Your task to perform on an android device: Show me productivity apps on the Play Store Image 0: 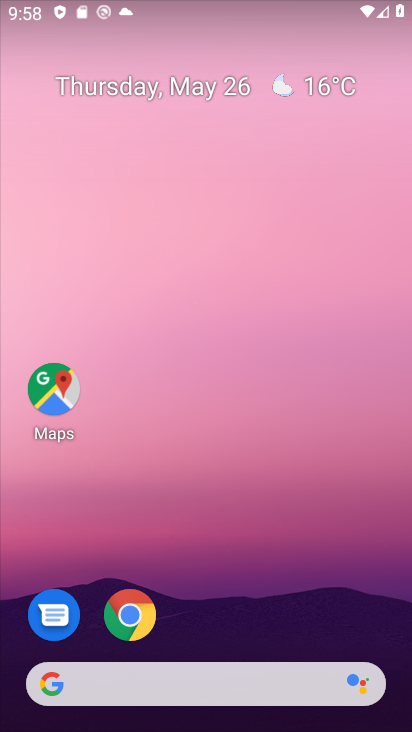
Step 0: press home button
Your task to perform on an android device: Show me productivity apps on the Play Store Image 1: 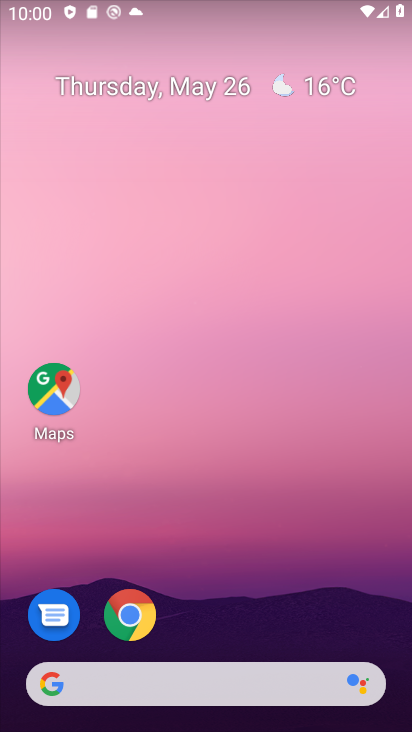
Step 1: drag from (295, 710) to (243, 202)
Your task to perform on an android device: Show me productivity apps on the Play Store Image 2: 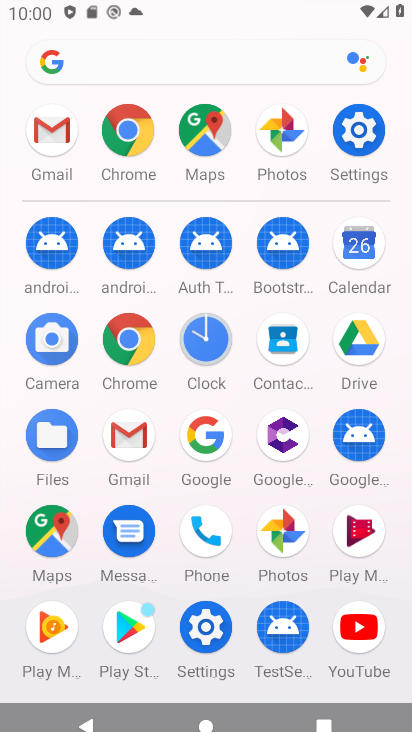
Step 2: click (131, 605)
Your task to perform on an android device: Show me productivity apps on the Play Store Image 3: 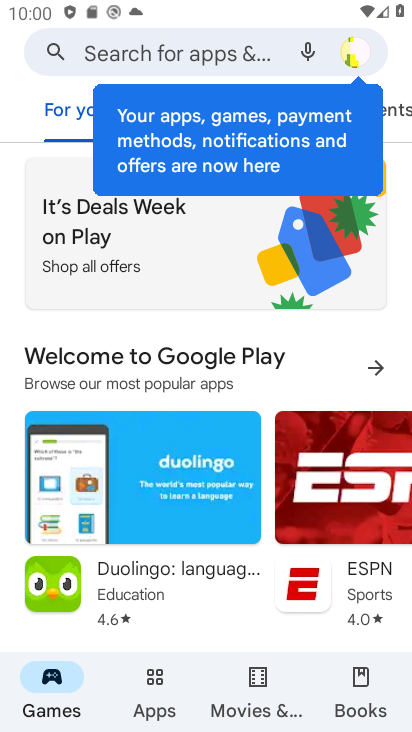
Step 3: click (182, 59)
Your task to perform on an android device: Show me productivity apps on the Play Store Image 4: 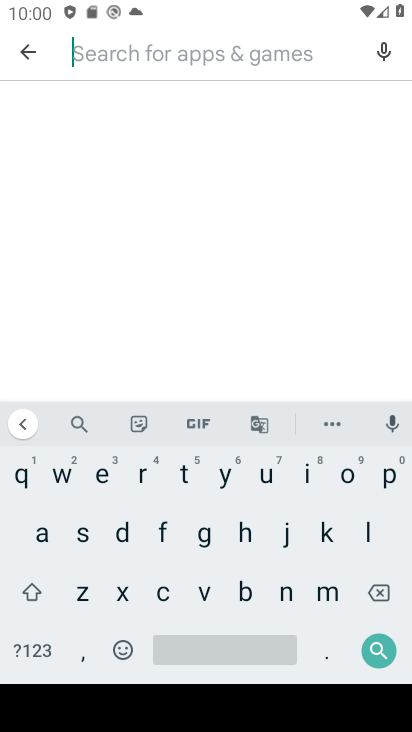
Step 4: click (377, 480)
Your task to perform on an android device: Show me productivity apps on the Play Store Image 5: 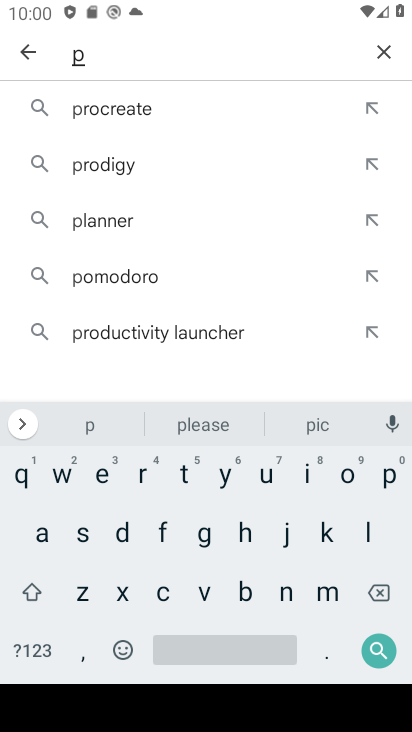
Step 5: click (139, 480)
Your task to perform on an android device: Show me productivity apps on the Play Store Image 6: 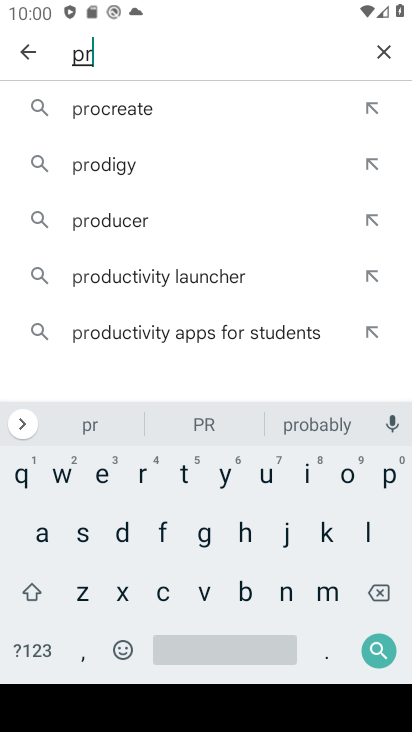
Step 6: click (330, 479)
Your task to perform on an android device: Show me productivity apps on the Play Store Image 7: 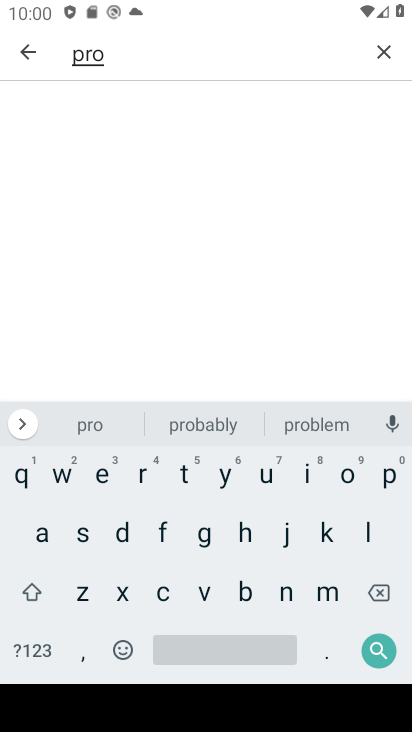
Step 7: click (113, 531)
Your task to perform on an android device: Show me productivity apps on the Play Store Image 8: 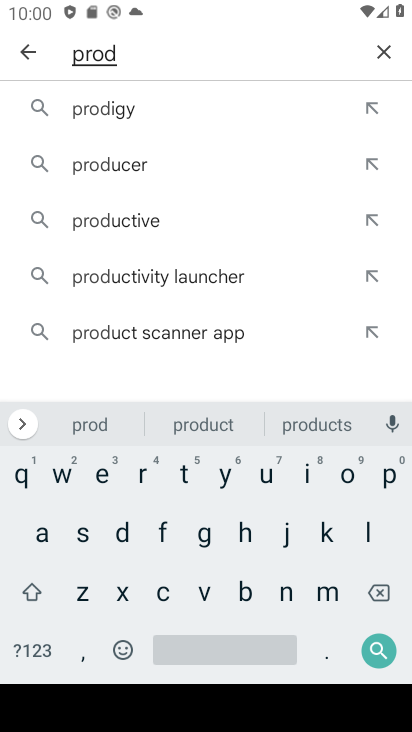
Step 8: click (253, 470)
Your task to perform on an android device: Show me productivity apps on the Play Store Image 9: 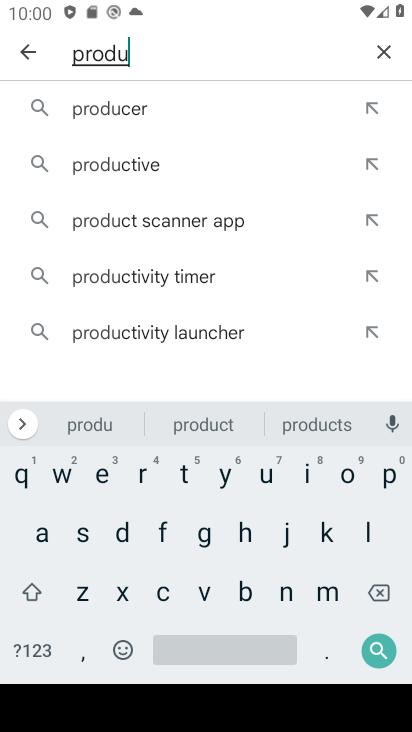
Step 9: click (156, 593)
Your task to perform on an android device: Show me productivity apps on the Play Store Image 10: 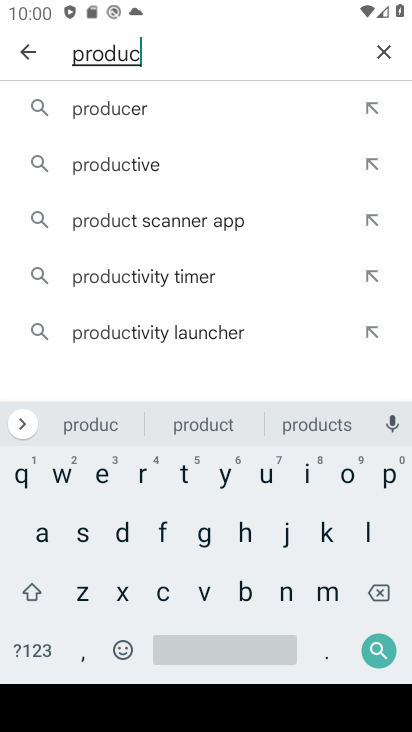
Step 10: click (172, 476)
Your task to perform on an android device: Show me productivity apps on the Play Store Image 11: 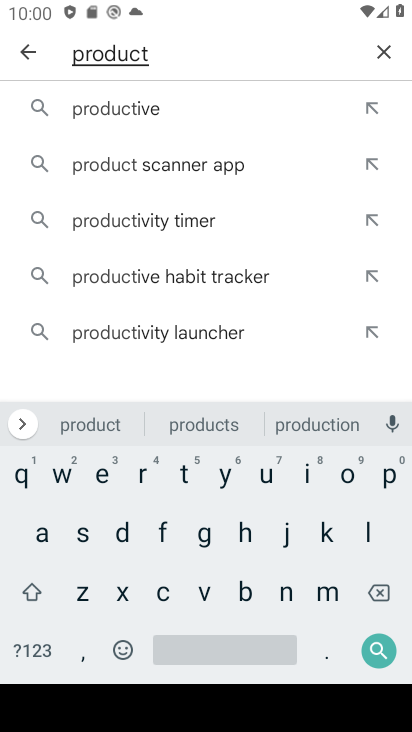
Step 11: click (303, 473)
Your task to perform on an android device: Show me productivity apps on the Play Store Image 12: 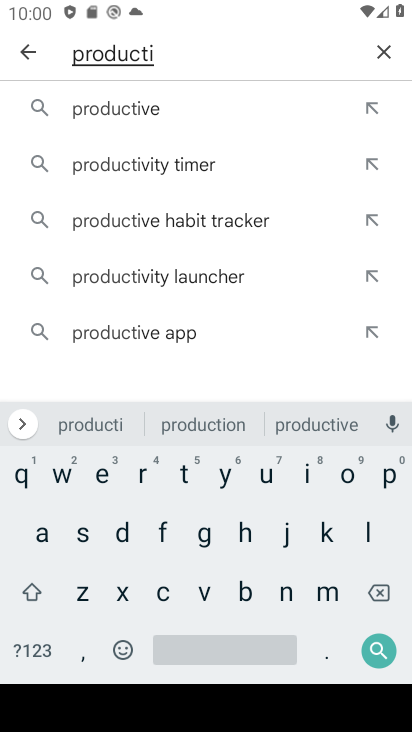
Step 12: click (199, 601)
Your task to perform on an android device: Show me productivity apps on the Play Store Image 13: 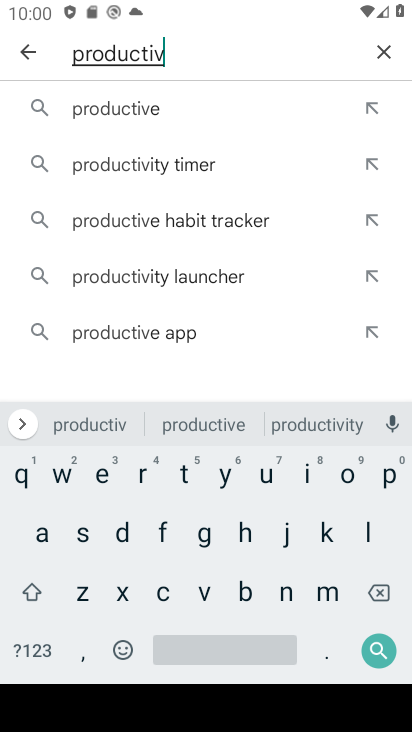
Step 13: click (325, 421)
Your task to perform on an android device: Show me productivity apps on the Play Store Image 14: 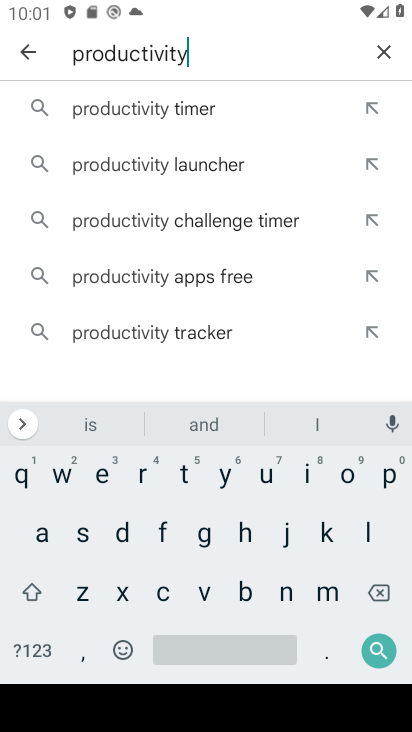
Step 14: click (37, 542)
Your task to perform on an android device: Show me productivity apps on the Play Store Image 15: 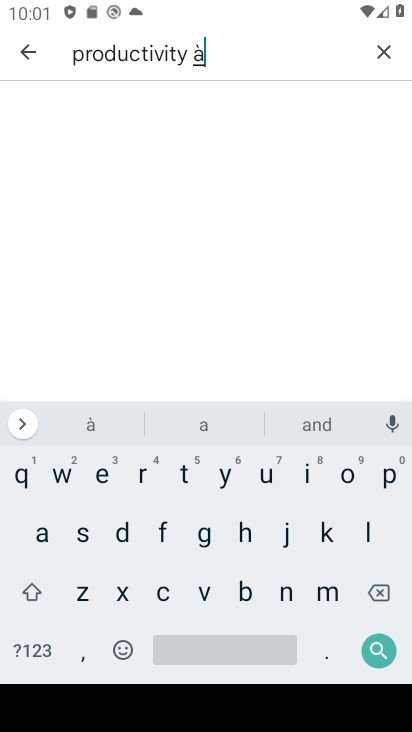
Step 15: click (371, 592)
Your task to perform on an android device: Show me productivity apps on the Play Store Image 16: 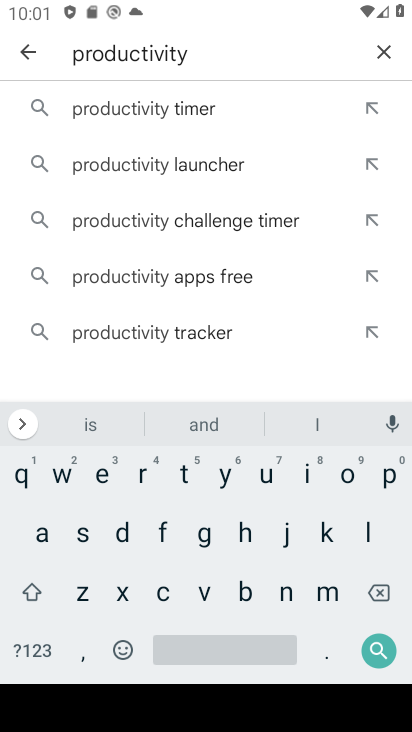
Step 16: click (45, 538)
Your task to perform on an android device: Show me productivity apps on the Play Store Image 17: 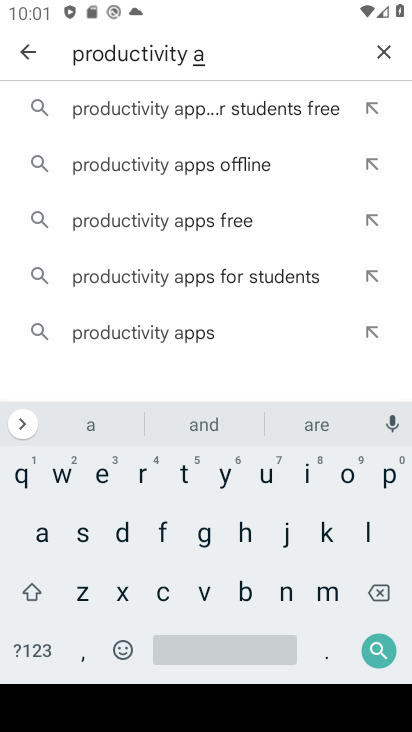
Step 17: click (382, 483)
Your task to perform on an android device: Show me productivity apps on the Play Store Image 18: 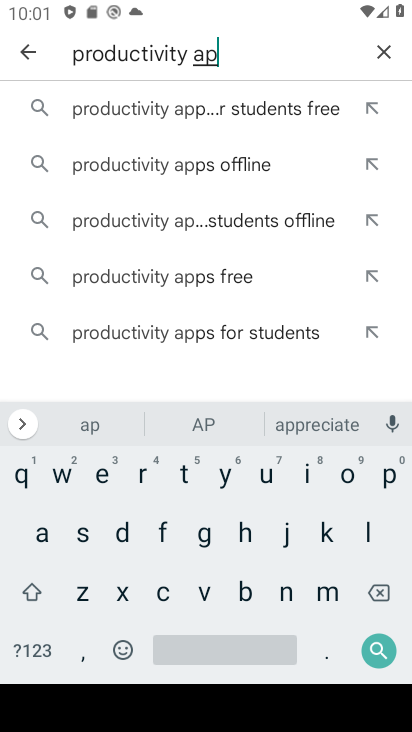
Step 18: click (379, 479)
Your task to perform on an android device: Show me productivity apps on the Play Store Image 19: 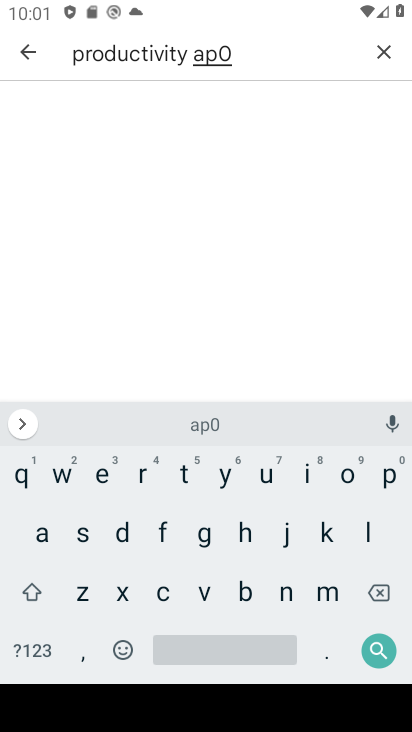
Step 19: click (75, 534)
Your task to perform on an android device: Show me productivity apps on the Play Store Image 20: 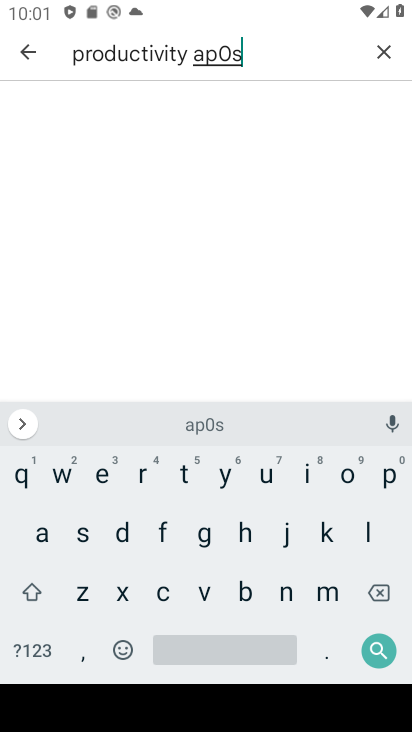
Step 20: click (377, 593)
Your task to perform on an android device: Show me productivity apps on the Play Store Image 21: 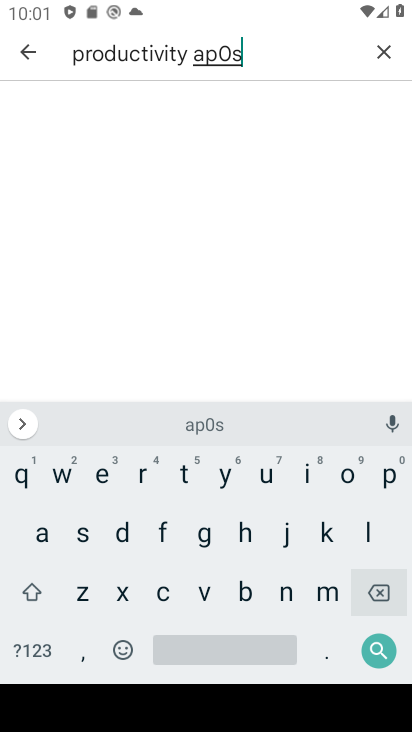
Step 21: click (377, 593)
Your task to perform on an android device: Show me productivity apps on the Play Store Image 22: 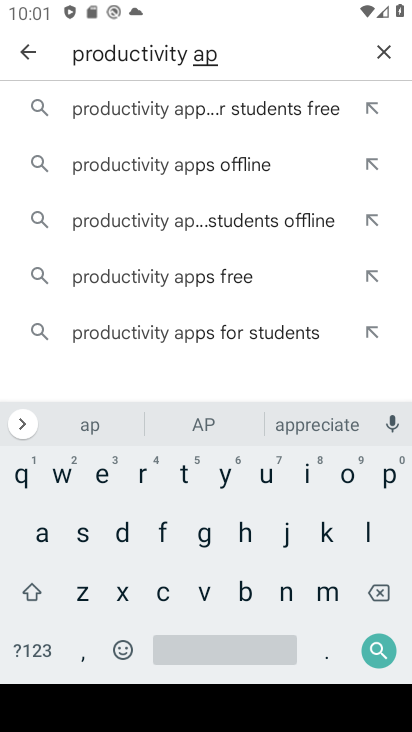
Step 22: click (385, 479)
Your task to perform on an android device: Show me productivity apps on the Play Store Image 23: 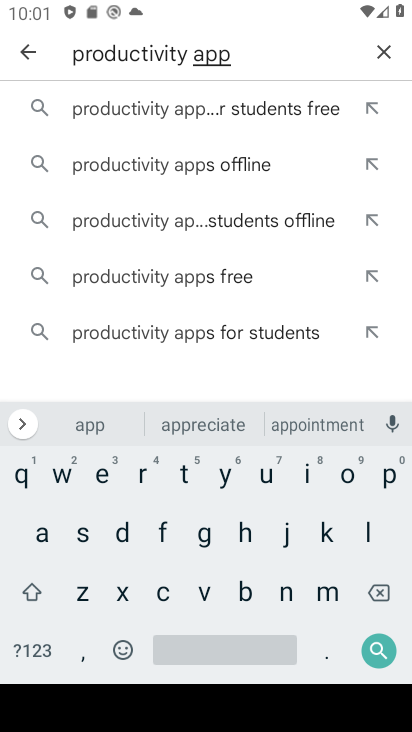
Step 23: click (78, 541)
Your task to perform on an android device: Show me productivity apps on the Play Store Image 24: 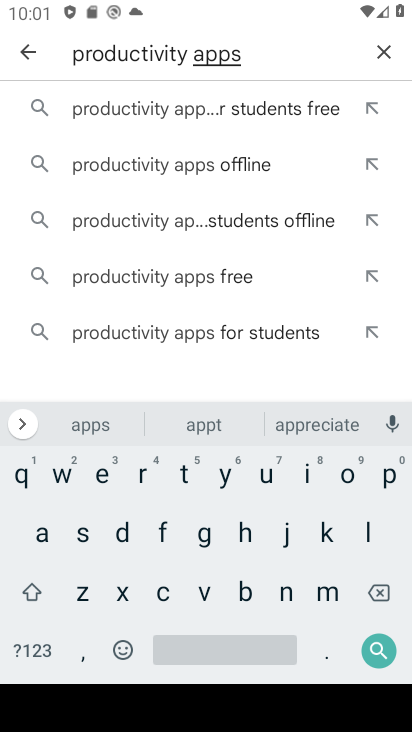
Step 24: click (382, 655)
Your task to perform on an android device: Show me productivity apps on the Play Store Image 25: 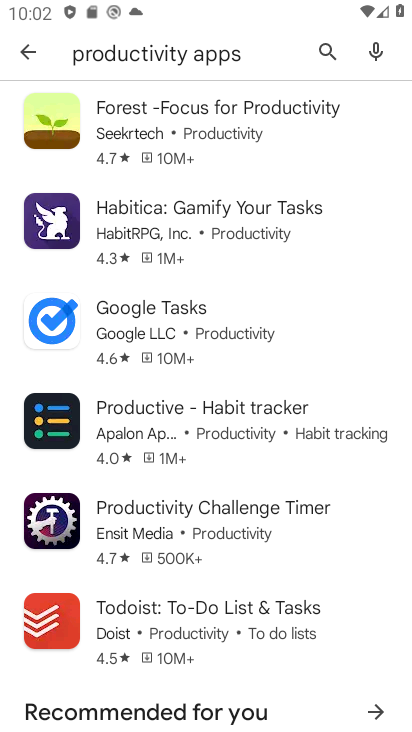
Step 25: task complete